Your task to perform on an android device: Search for "acer predator" on target, select the first entry, and add it to the cart. Image 0: 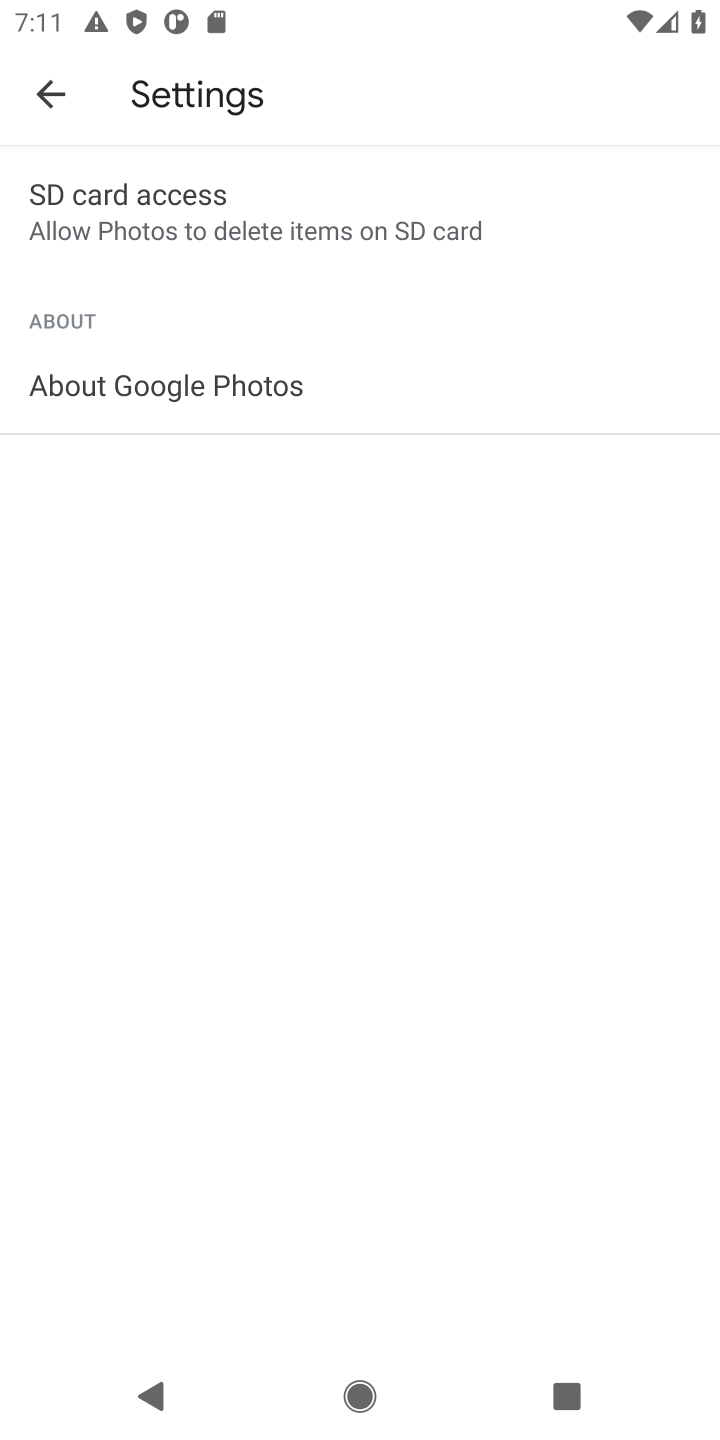
Step 0: press home button
Your task to perform on an android device: Search for "acer predator" on target, select the first entry, and add it to the cart. Image 1: 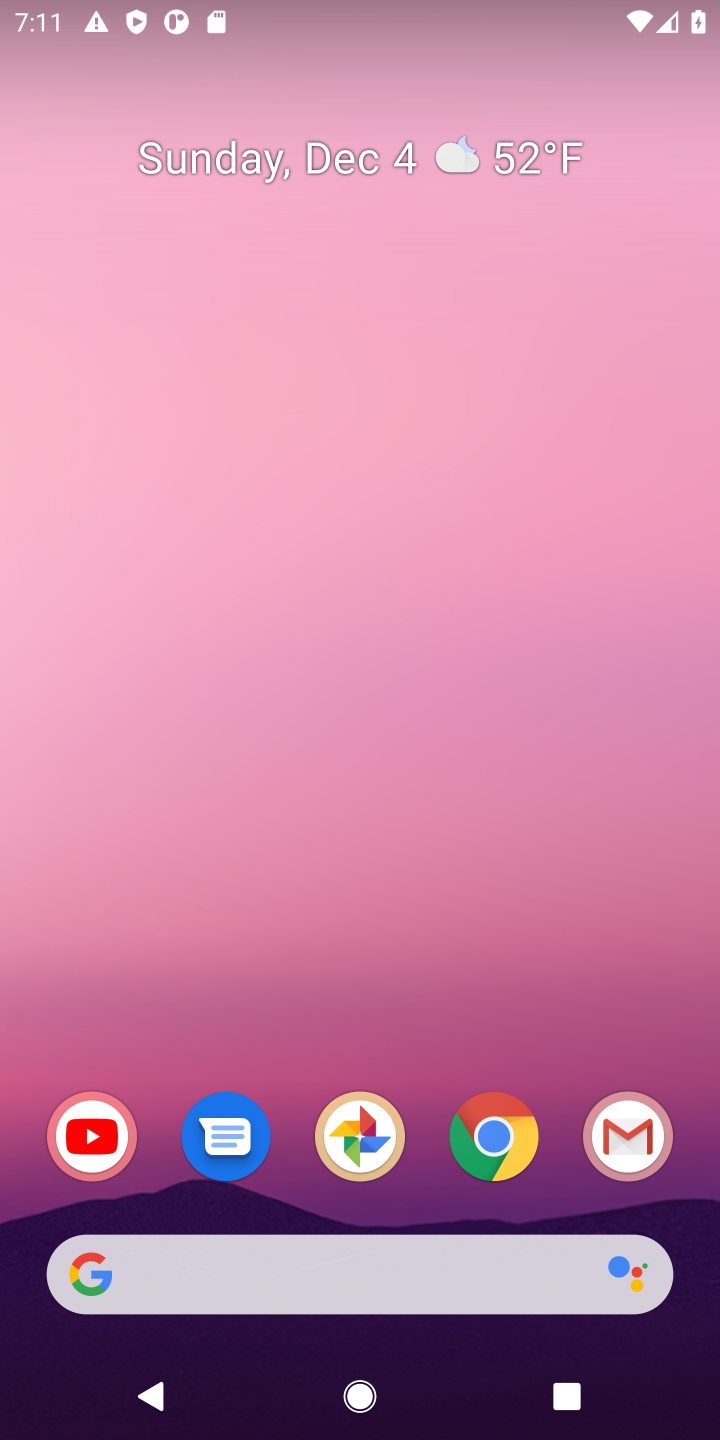
Step 1: click (514, 1143)
Your task to perform on an android device: Search for "acer predator" on target, select the first entry, and add it to the cart. Image 2: 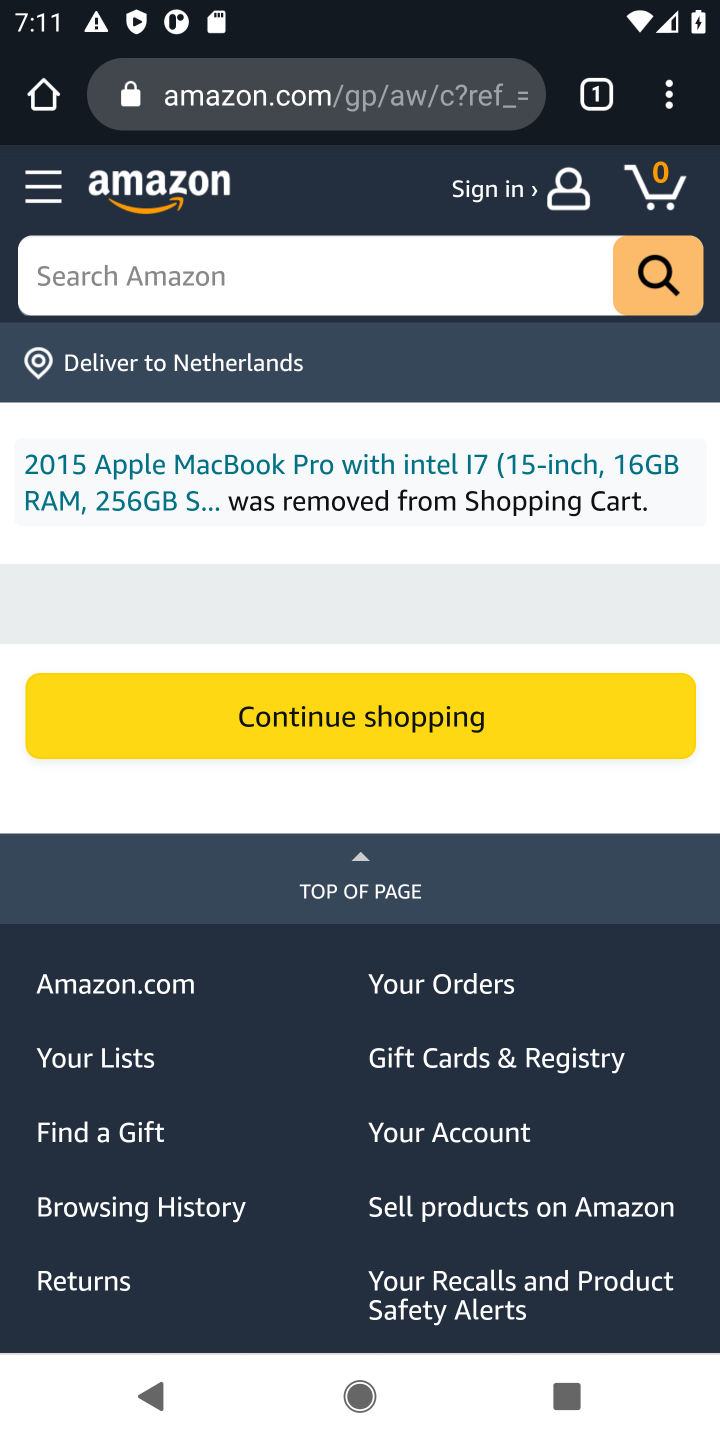
Step 2: click (280, 106)
Your task to perform on an android device: Search for "acer predator" on target, select the first entry, and add it to the cart. Image 3: 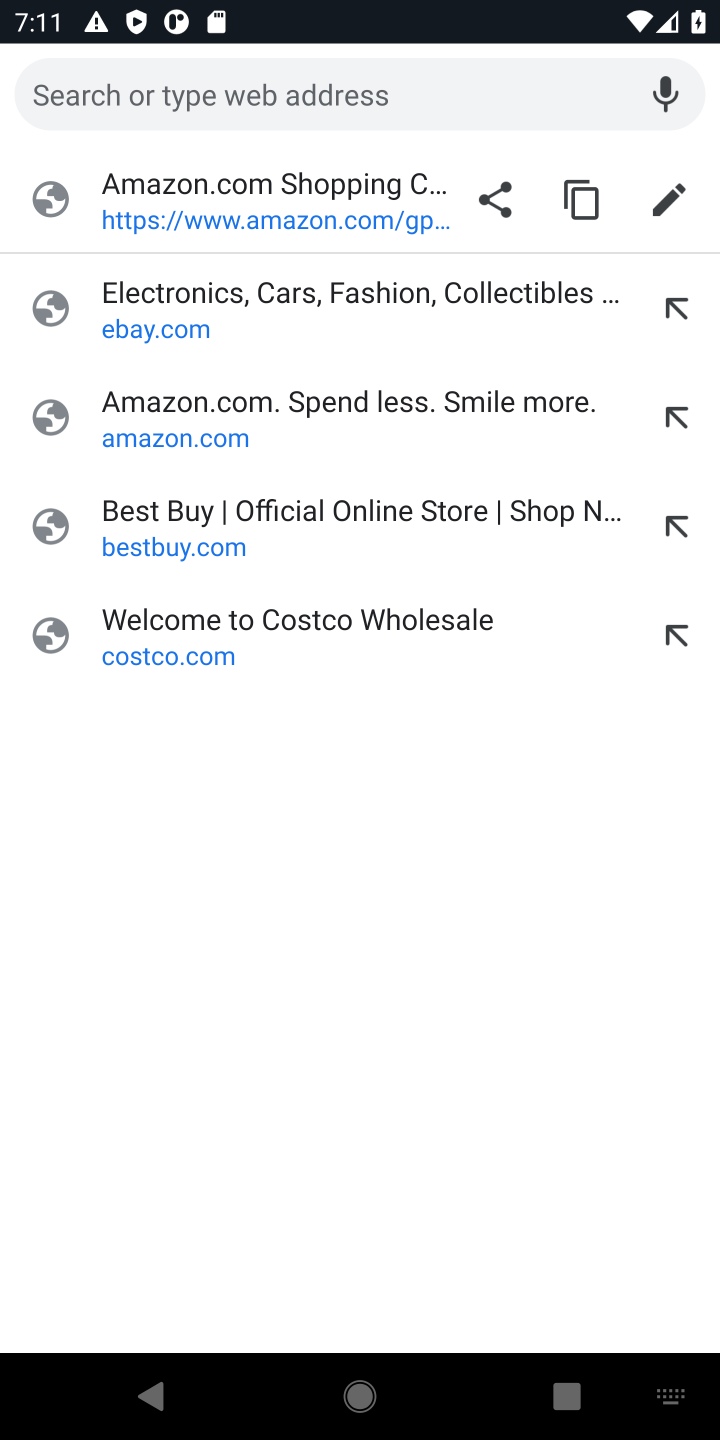
Step 3: type "target.com"
Your task to perform on an android device: Search for "acer predator" on target, select the first entry, and add it to the cart. Image 4: 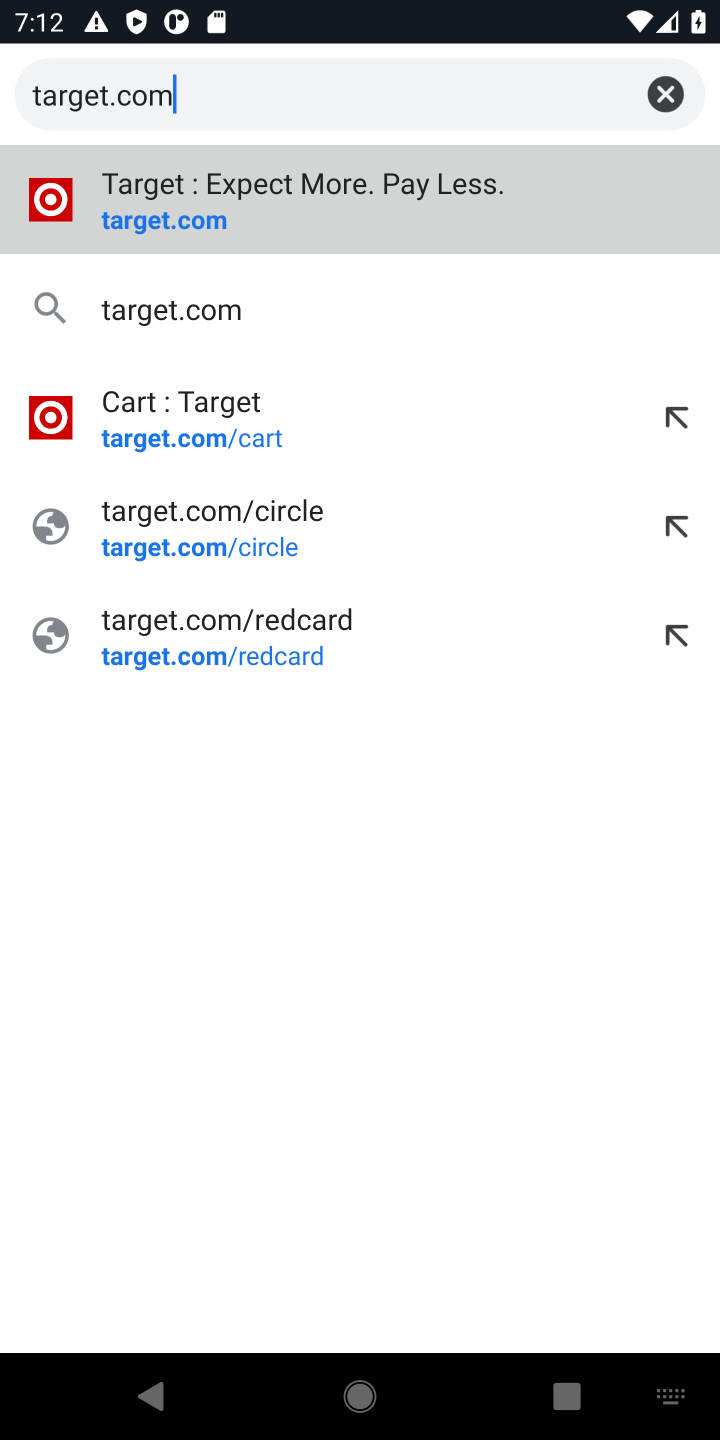
Step 4: click (139, 228)
Your task to perform on an android device: Search for "acer predator" on target, select the first entry, and add it to the cart. Image 5: 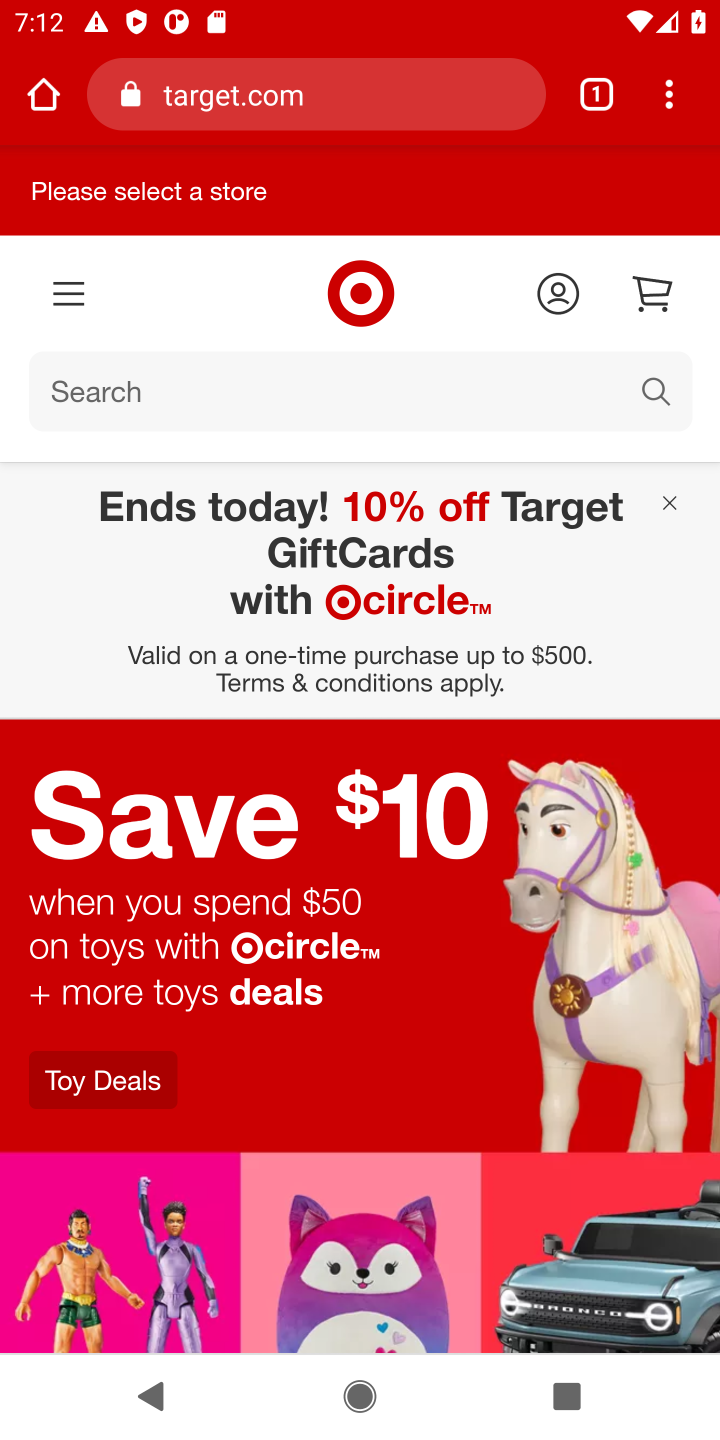
Step 5: click (77, 389)
Your task to perform on an android device: Search for "acer predator" on target, select the first entry, and add it to the cart. Image 6: 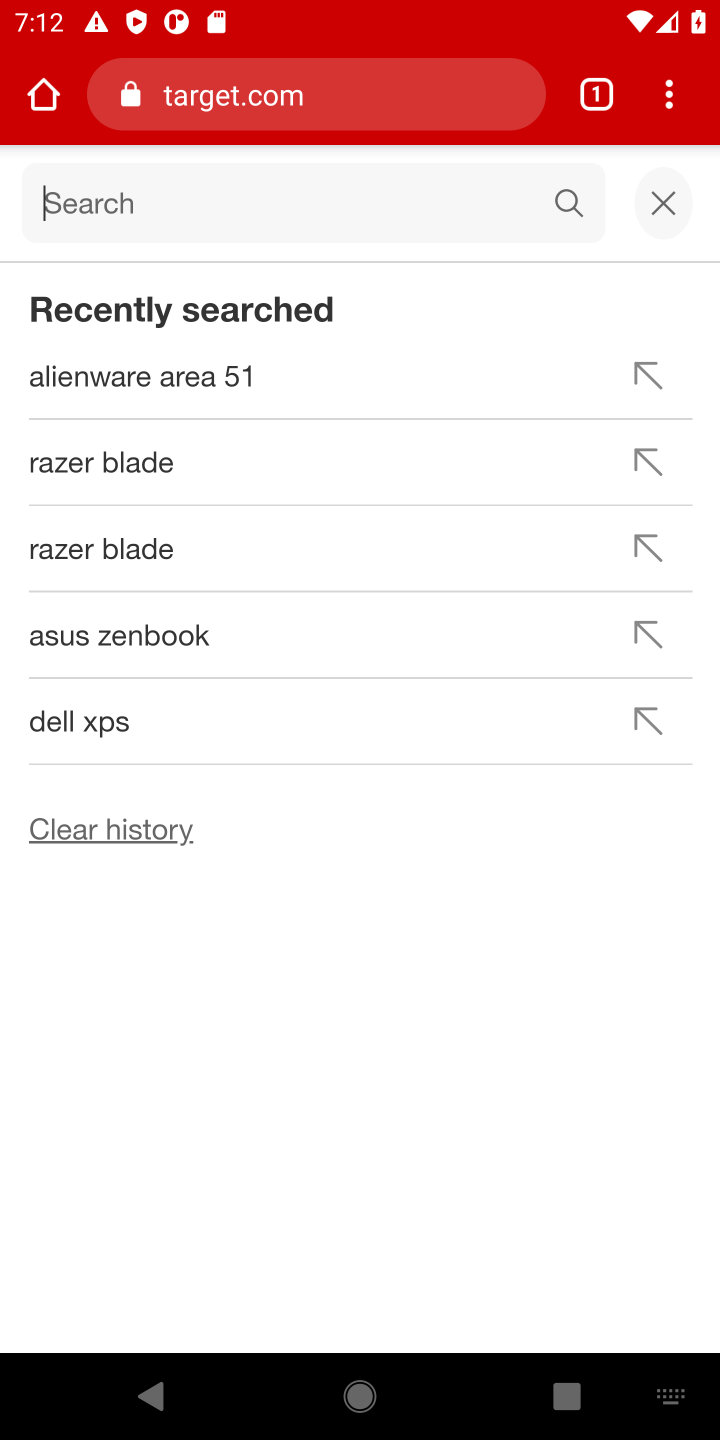
Step 6: type "acer predator"
Your task to perform on an android device: Search for "acer predator" on target, select the first entry, and add it to the cart. Image 7: 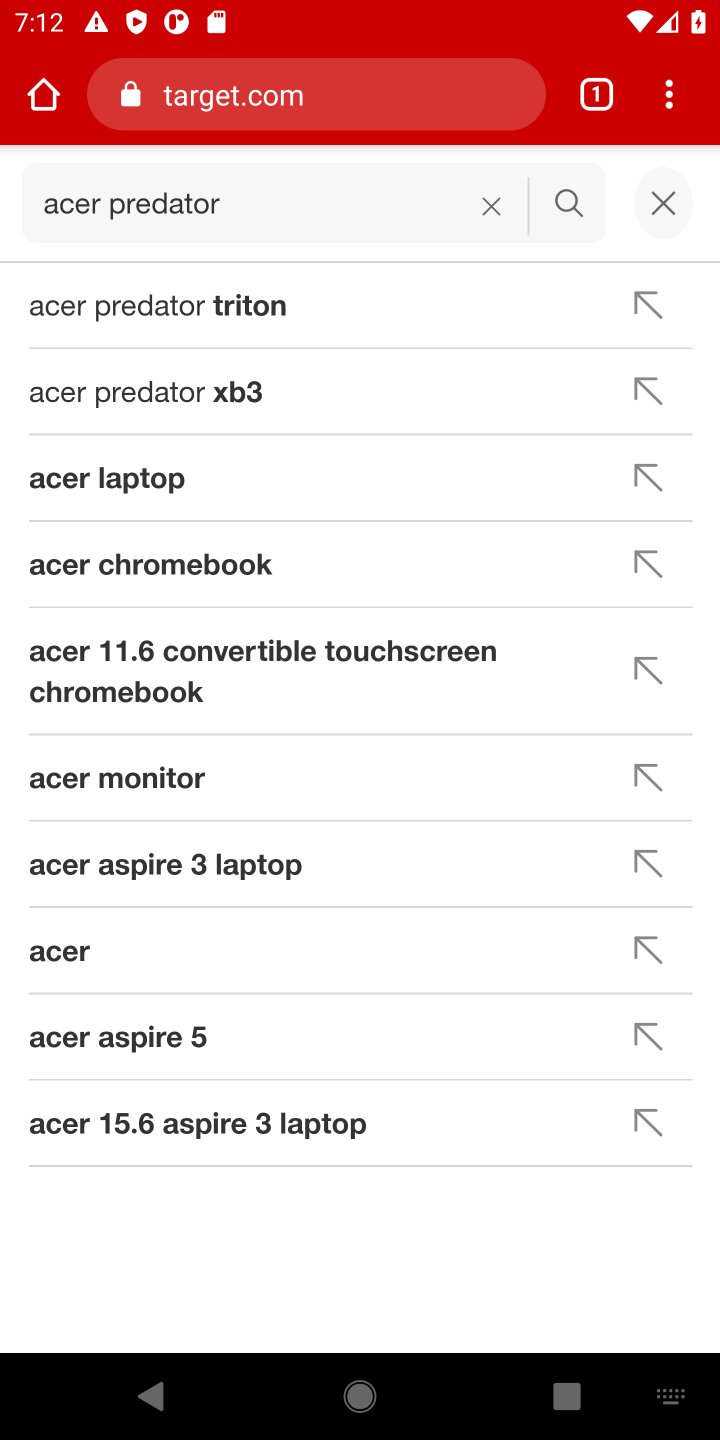
Step 7: click (570, 215)
Your task to perform on an android device: Search for "acer predator" on target, select the first entry, and add it to the cart. Image 8: 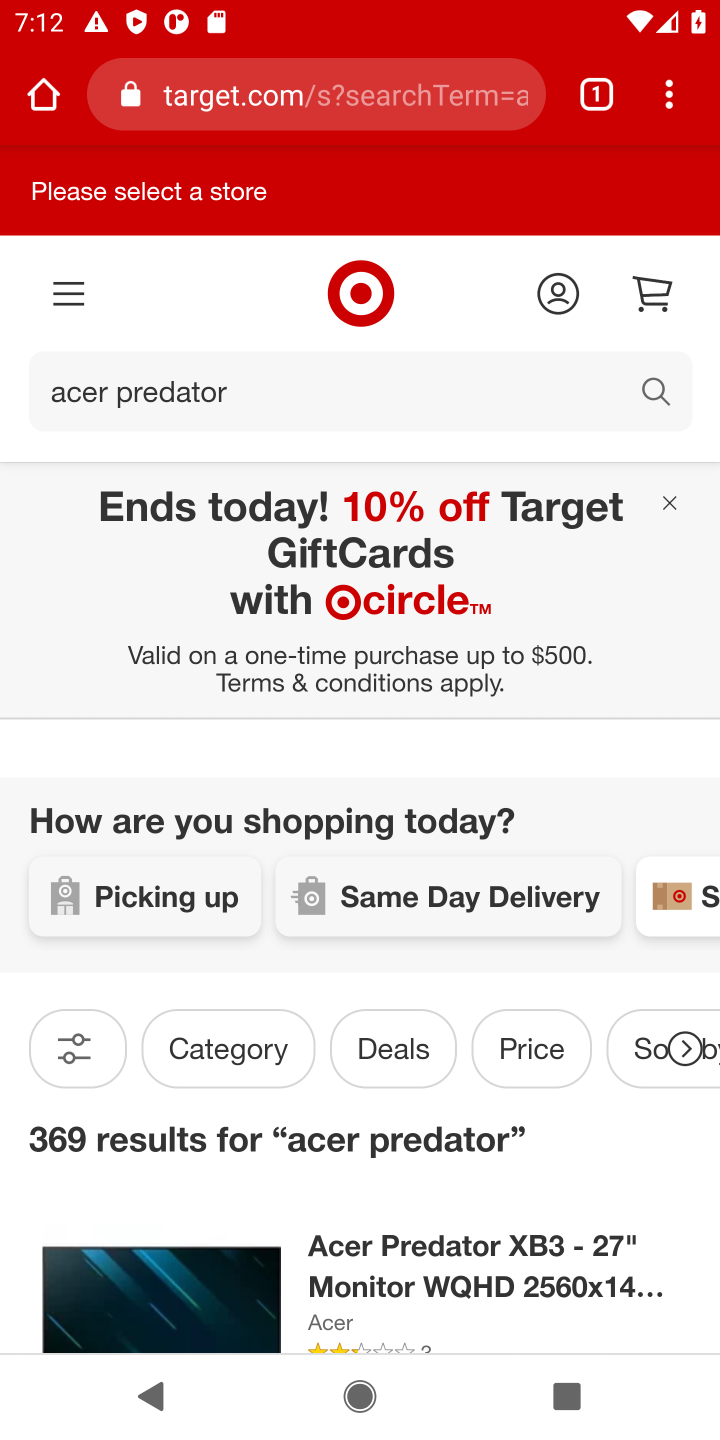
Step 8: drag from (297, 787) to (332, 296)
Your task to perform on an android device: Search for "acer predator" on target, select the first entry, and add it to the cart. Image 9: 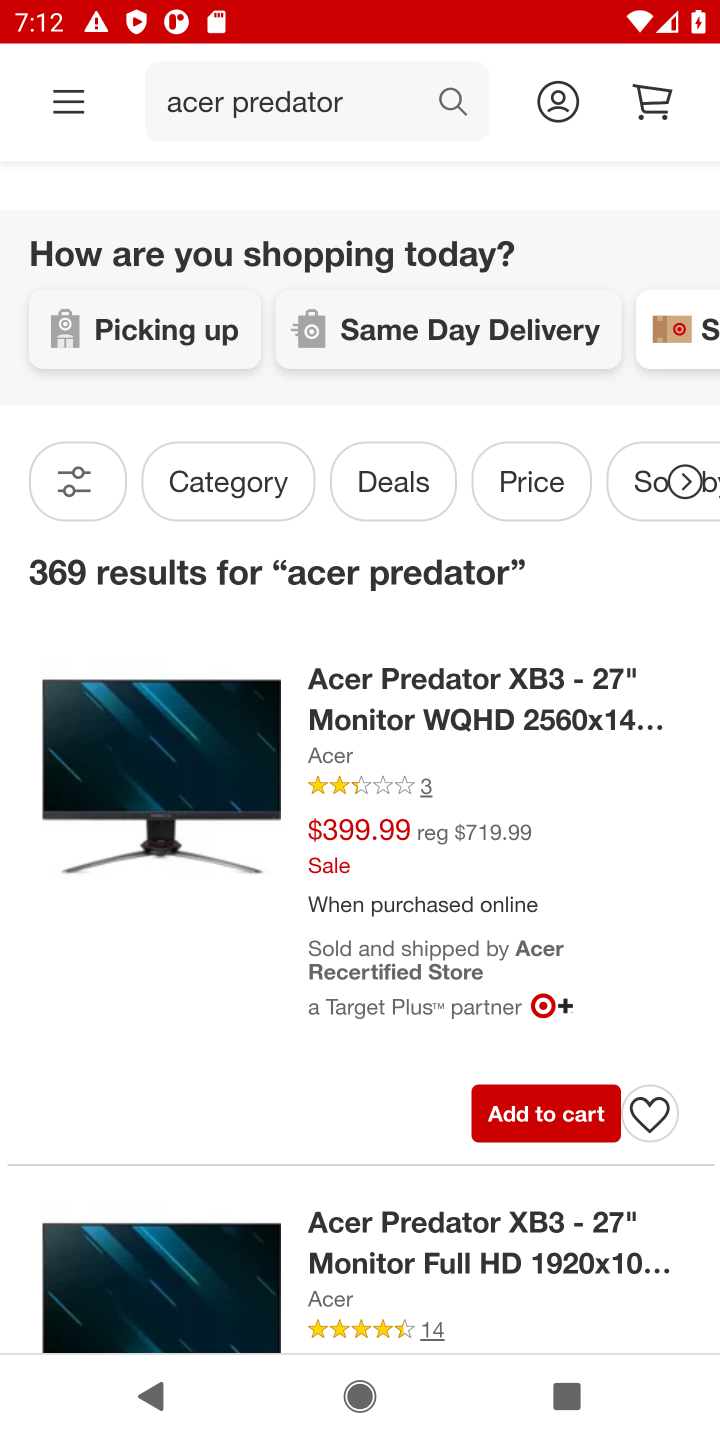
Step 9: click (532, 1107)
Your task to perform on an android device: Search for "acer predator" on target, select the first entry, and add it to the cart. Image 10: 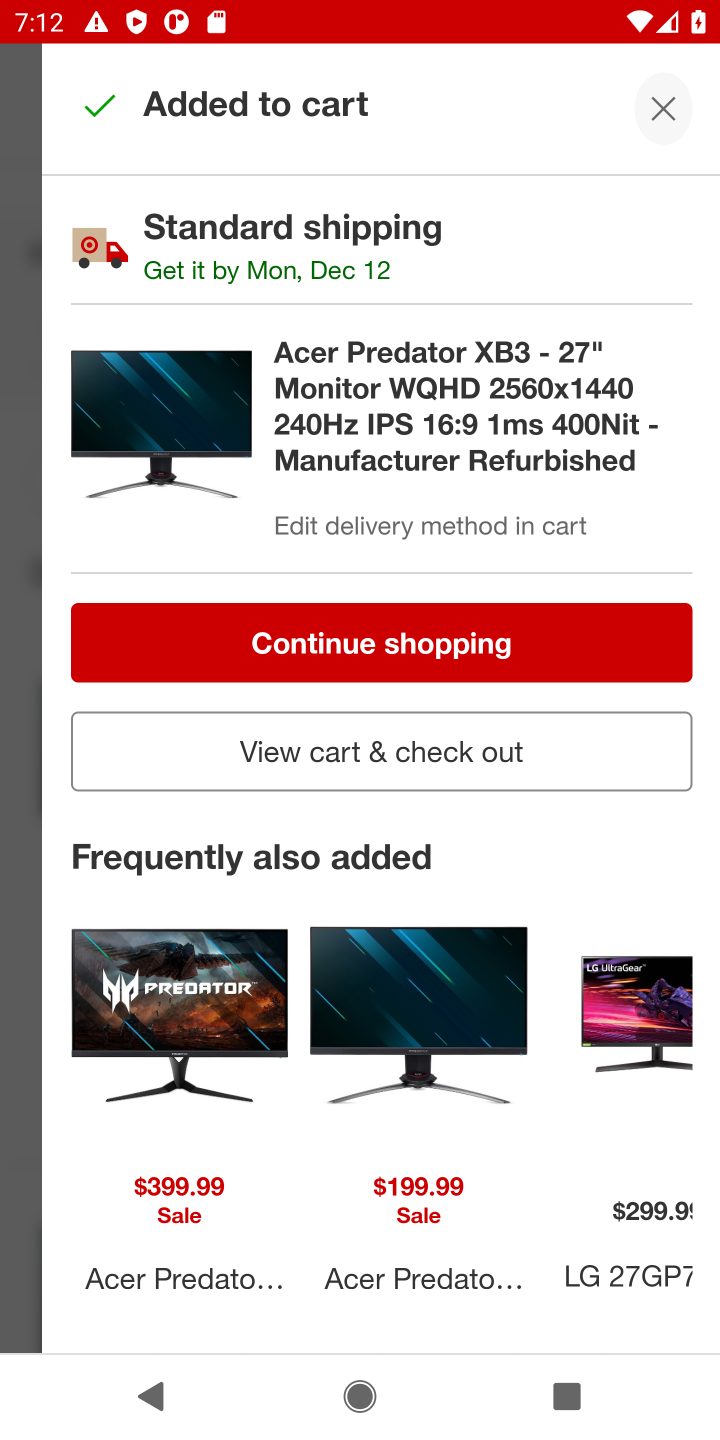
Step 10: task complete